Your task to perform on an android device: Go to accessibility settings Image 0: 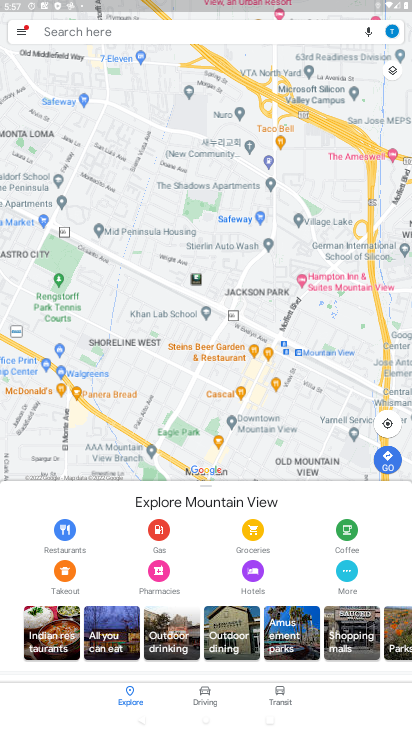
Step 0: drag from (321, 229) to (256, 44)
Your task to perform on an android device: Go to accessibility settings Image 1: 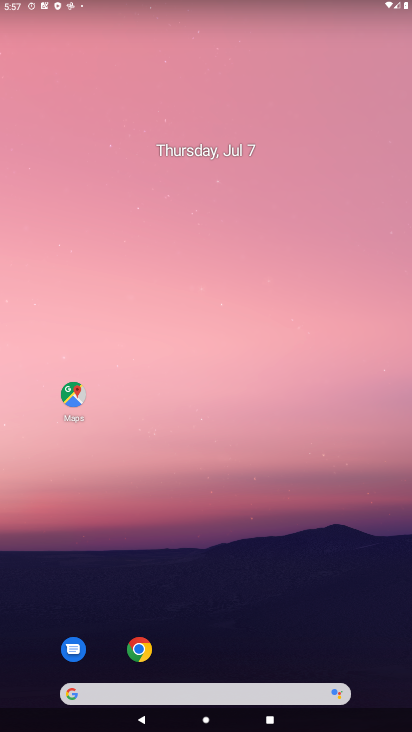
Step 1: drag from (322, 390) to (217, 38)
Your task to perform on an android device: Go to accessibility settings Image 2: 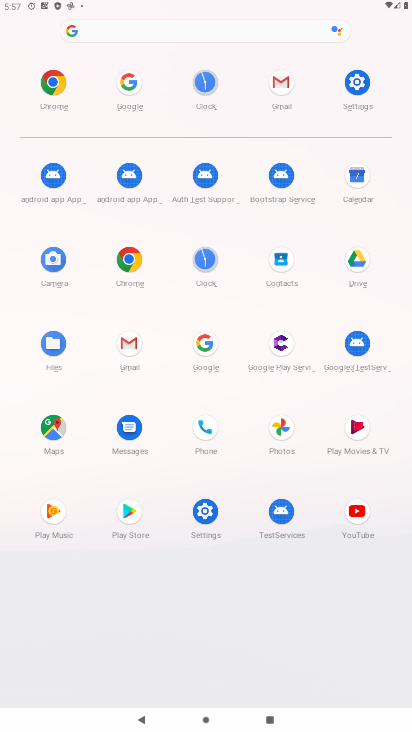
Step 2: click (359, 78)
Your task to perform on an android device: Go to accessibility settings Image 3: 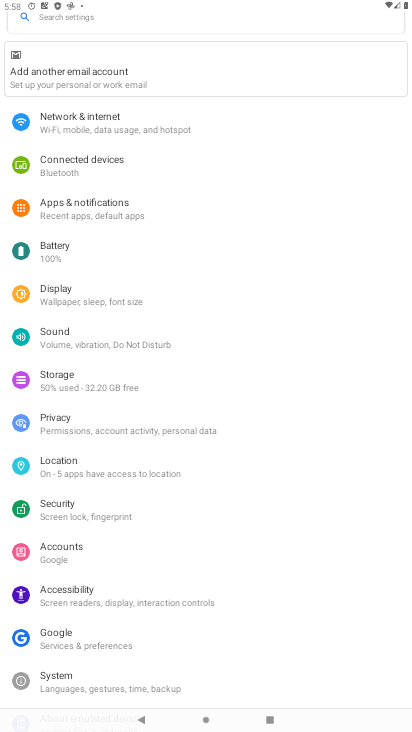
Step 3: click (87, 597)
Your task to perform on an android device: Go to accessibility settings Image 4: 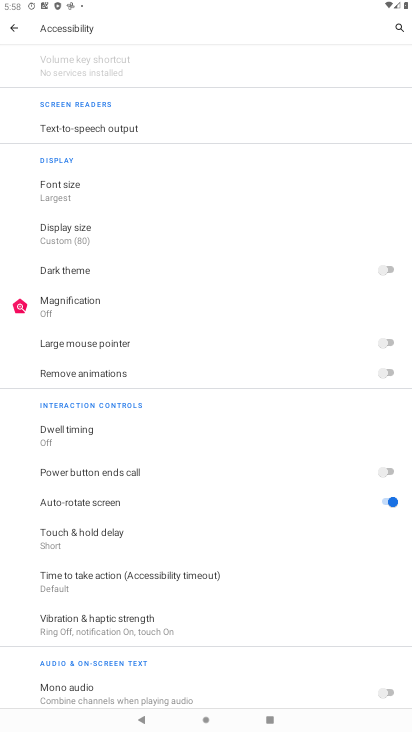
Step 4: task complete